Your task to perform on an android device: add a contact in the contacts app Image 0: 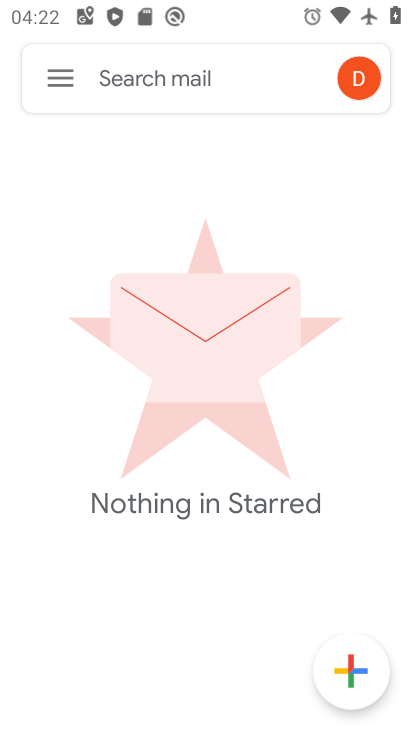
Step 0: press home button
Your task to perform on an android device: add a contact in the contacts app Image 1: 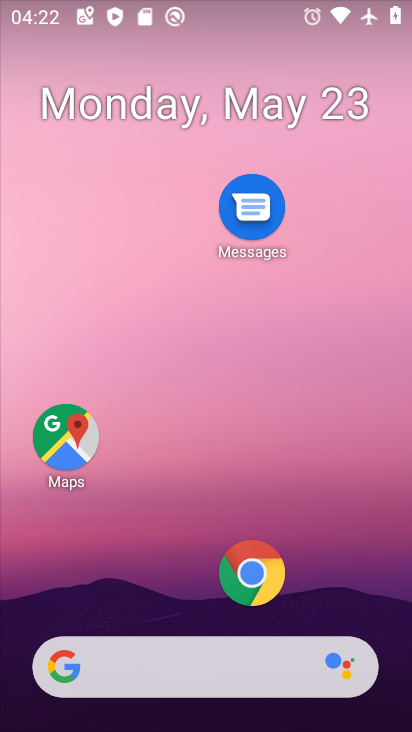
Step 1: drag from (337, 613) to (311, 11)
Your task to perform on an android device: add a contact in the contacts app Image 2: 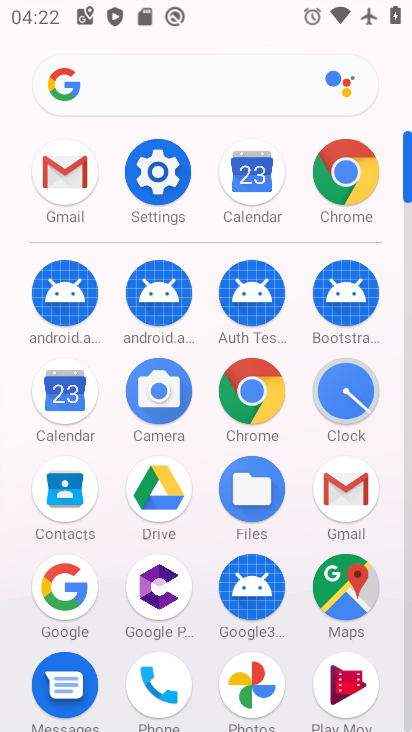
Step 2: click (84, 494)
Your task to perform on an android device: add a contact in the contacts app Image 3: 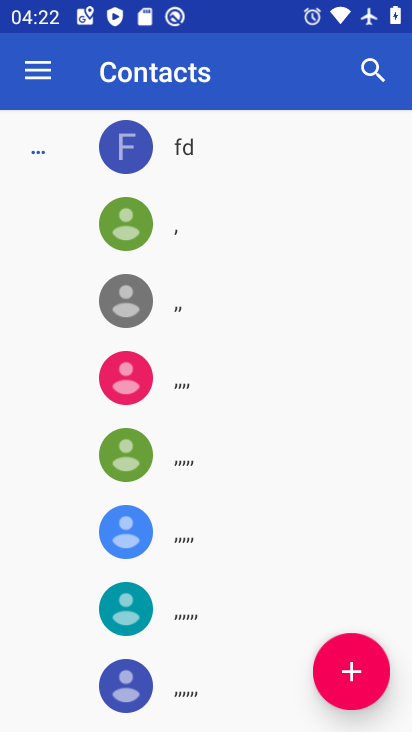
Step 3: click (347, 673)
Your task to perform on an android device: add a contact in the contacts app Image 4: 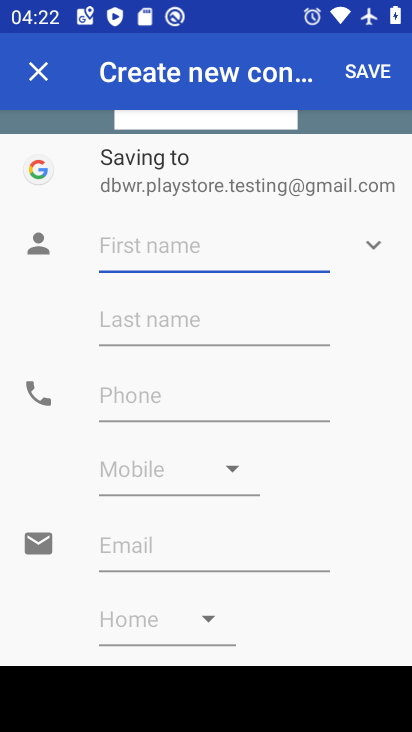
Step 4: type "klhhkhkhk"
Your task to perform on an android device: add a contact in the contacts app Image 5: 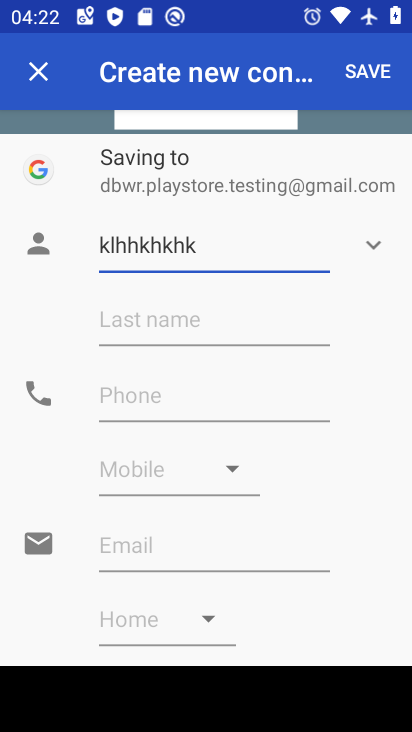
Step 5: click (187, 401)
Your task to perform on an android device: add a contact in the contacts app Image 6: 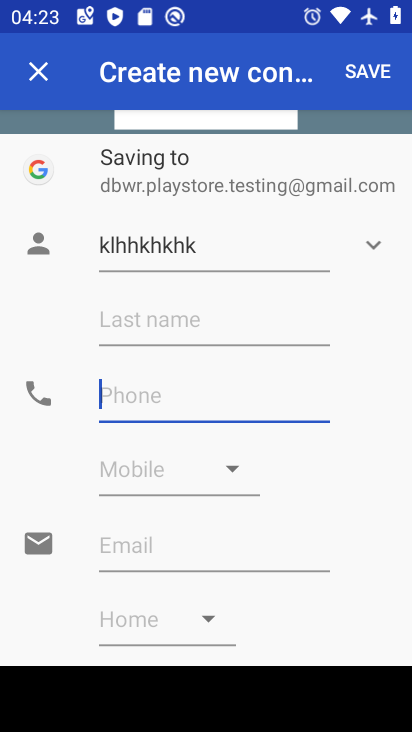
Step 6: type "987677899"
Your task to perform on an android device: add a contact in the contacts app Image 7: 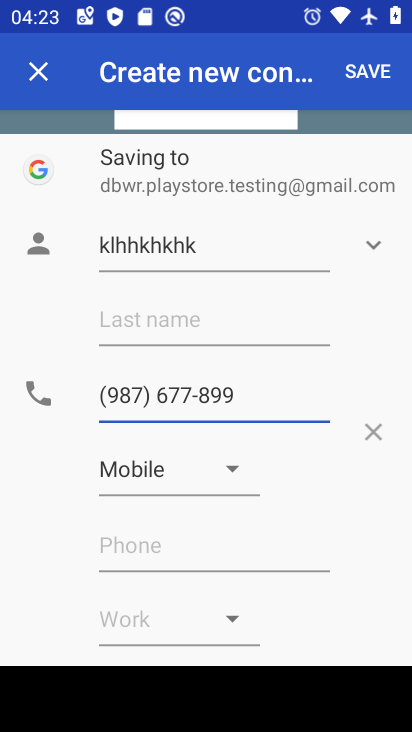
Step 7: click (356, 70)
Your task to perform on an android device: add a contact in the contacts app Image 8: 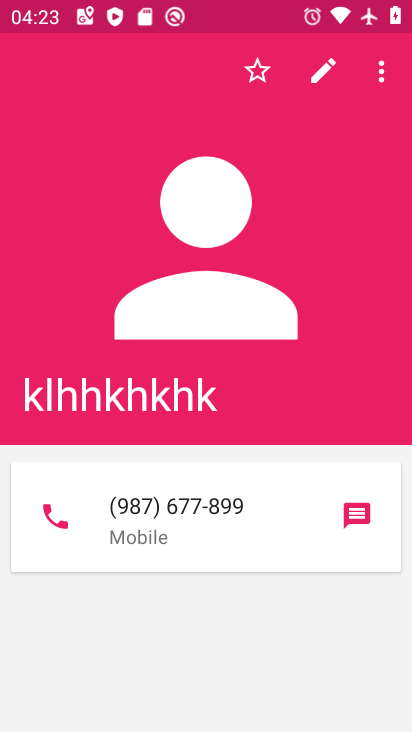
Step 8: task complete